Your task to perform on an android device: Go to location settings Image 0: 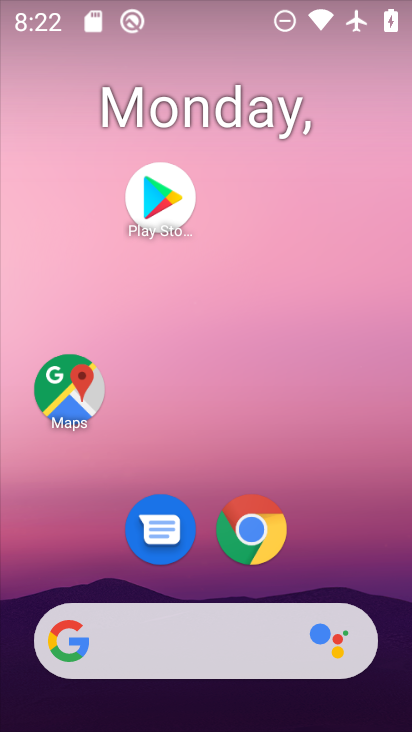
Step 0: drag from (226, 417) to (192, 81)
Your task to perform on an android device: Go to location settings Image 1: 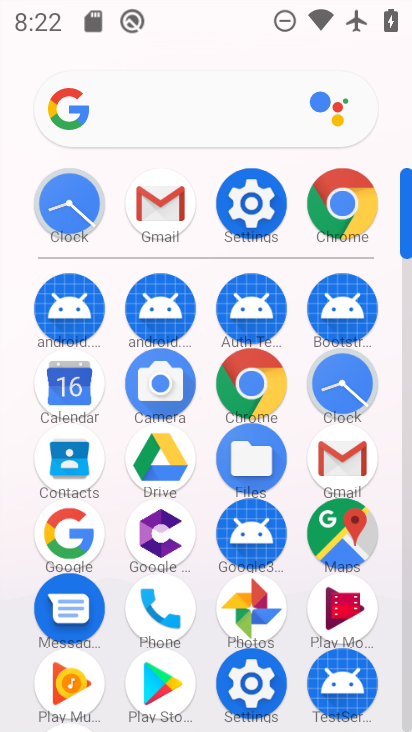
Step 1: click (251, 205)
Your task to perform on an android device: Go to location settings Image 2: 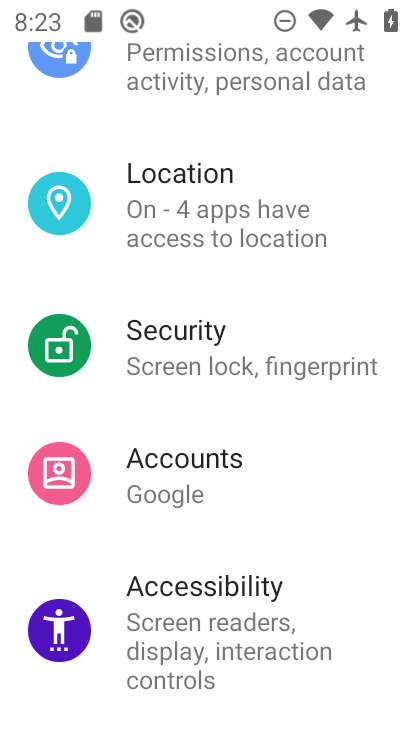
Step 2: click (181, 182)
Your task to perform on an android device: Go to location settings Image 3: 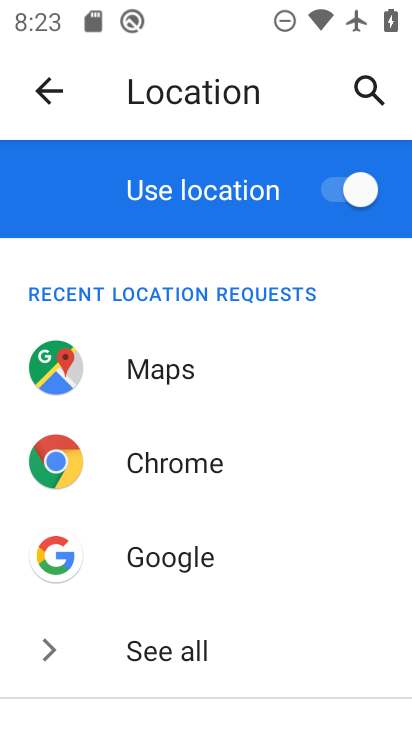
Step 3: task complete